Your task to perform on an android device: Go to accessibility settings Image 0: 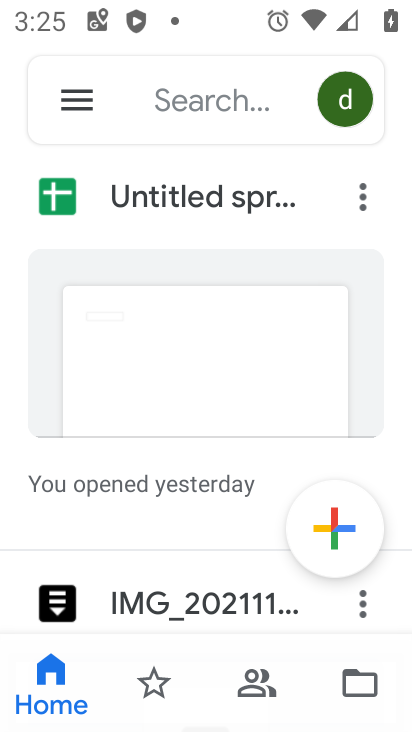
Step 0: press home button
Your task to perform on an android device: Go to accessibility settings Image 1: 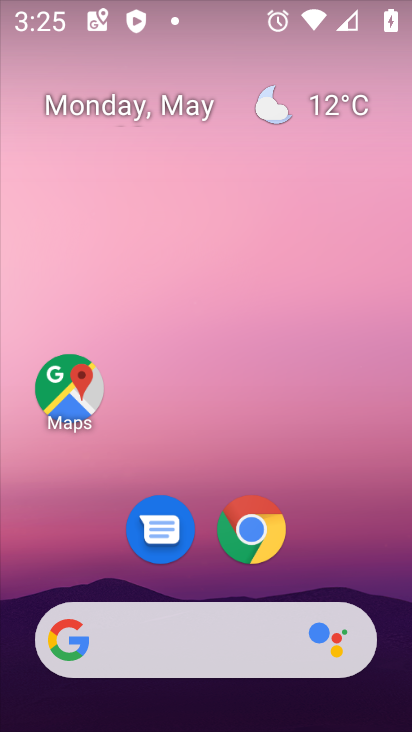
Step 1: drag from (339, 581) to (314, 47)
Your task to perform on an android device: Go to accessibility settings Image 2: 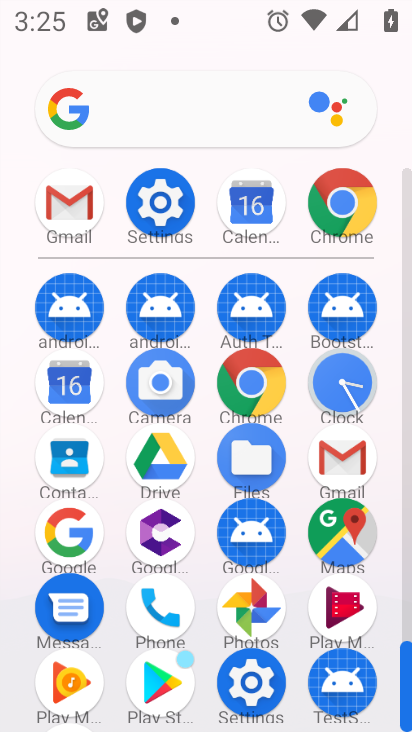
Step 2: click (151, 194)
Your task to perform on an android device: Go to accessibility settings Image 3: 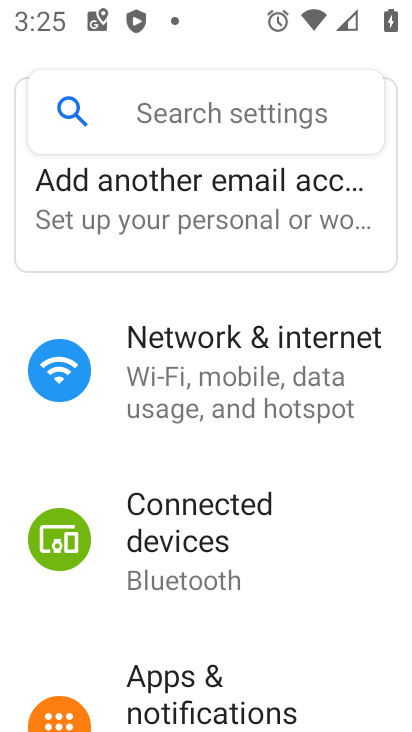
Step 3: drag from (181, 478) to (171, 251)
Your task to perform on an android device: Go to accessibility settings Image 4: 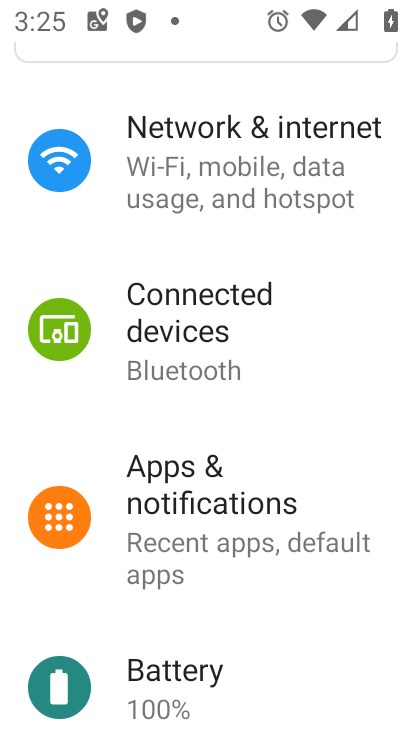
Step 4: drag from (199, 540) to (167, 350)
Your task to perform on an android device: Go to accessibility settings Image 5: 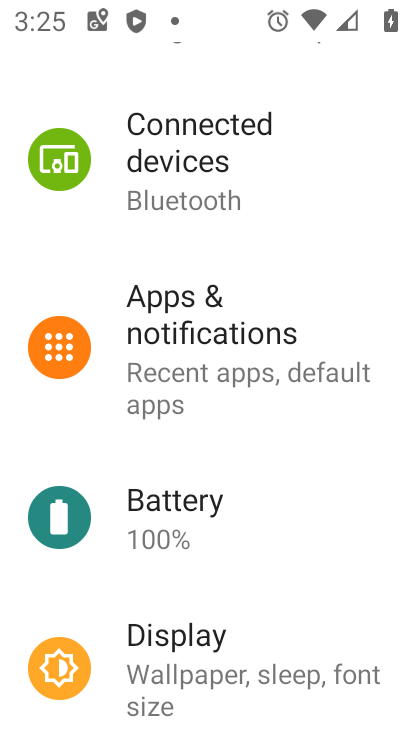
Step 5: drag from (200, 601) to (203, 399)
Your task to perform on an android device: Go to accessibility settings Image 6: 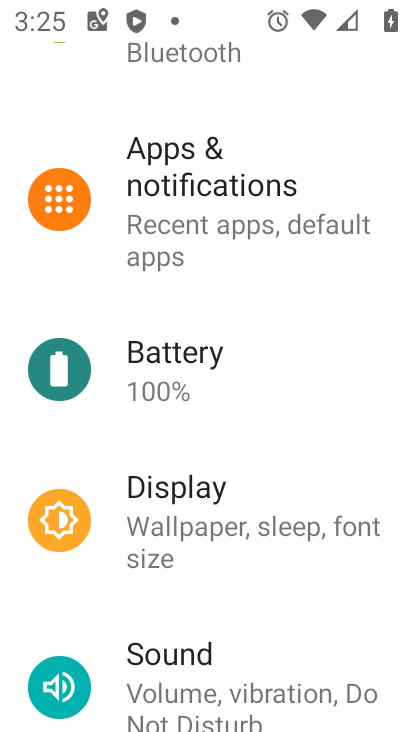
Step 6: drag from (244, 683) to (239, 509)
Your task to perform on an android device: Go to accessibility settings Image 7: 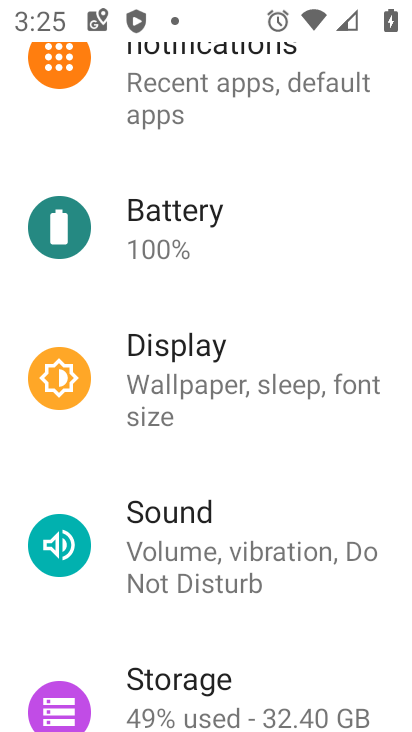
Step 7: drag from (251, 666) to (242, 512)
Your task to perform on an android device: Go to accessibility settings Image 8: 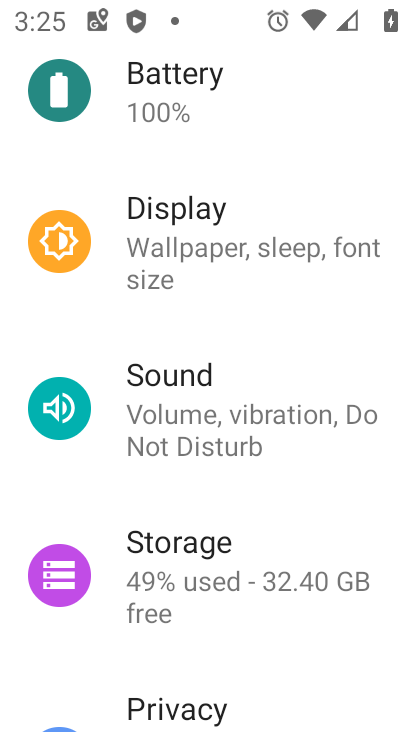
Step 8: drag from (259, 620) to (267, 469)
Your task to perform on an android device: Go to accessibility settings Image 9: 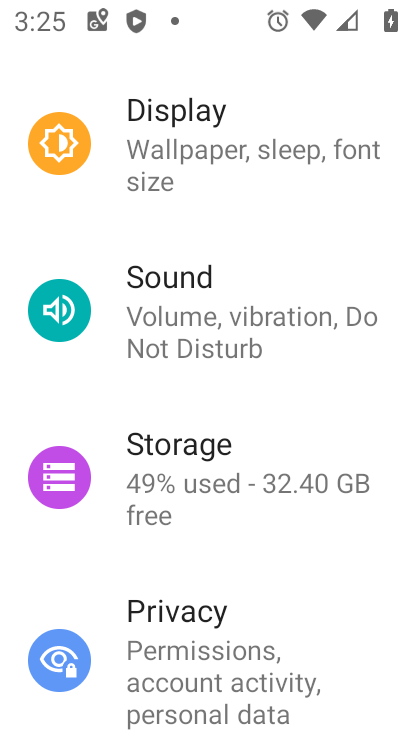
Step 9: drag from (298, 637) to (281, 505)
Your task to perform on an android device: Go to accessibility settings Image 10: 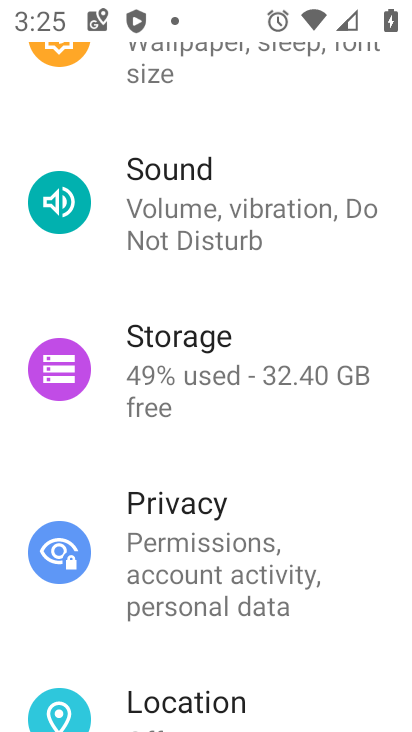
Step 10: drag from (278, 594) to (254, 469)
Your task to perform on an android device: Go to accessibility settings Image 11: 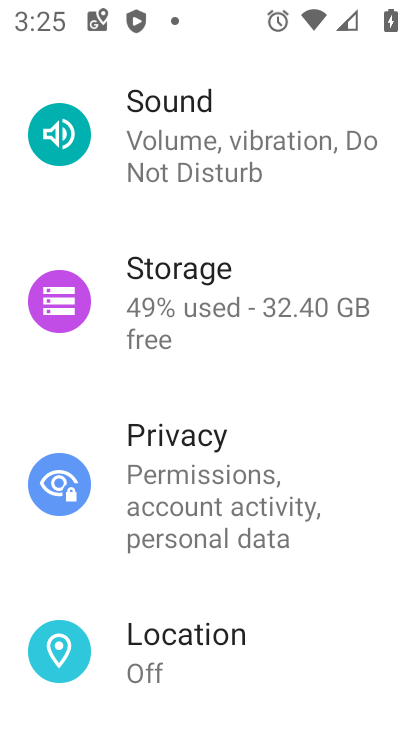
Step 11: drag from (281, 612) to (272, 495)
Your task to perform on an android device: Go to accessibility settings Image 12: 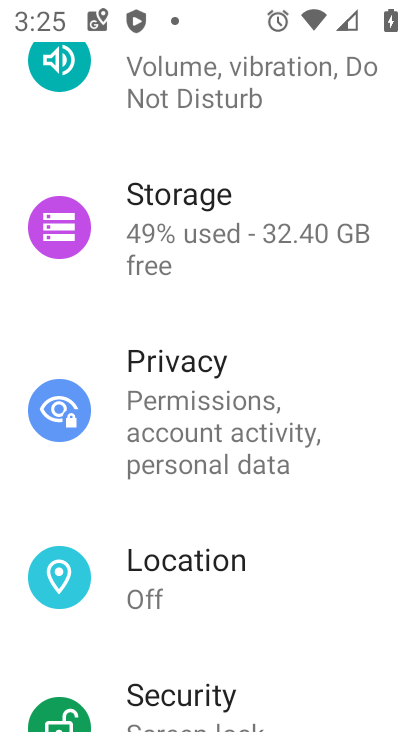
Step 12: drag from (261, 592) to (248, 453)
Your task to perform on an android device: Go to accessibility settings Image 13: 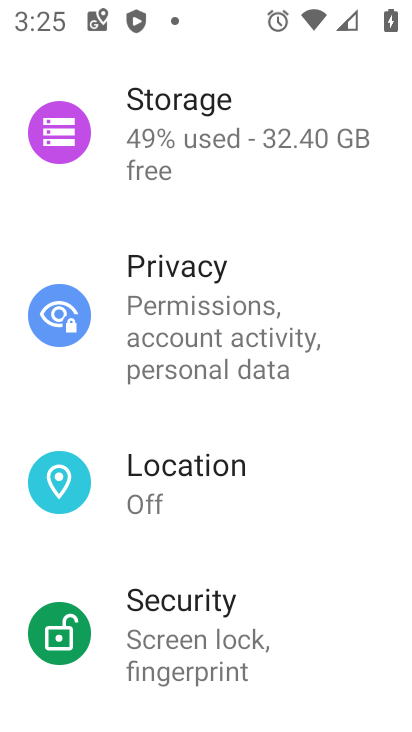
Step 13: drag from (206, 626) to (206, 483)
Your task to perform on an android device: Go to accessibility settings Image 14: 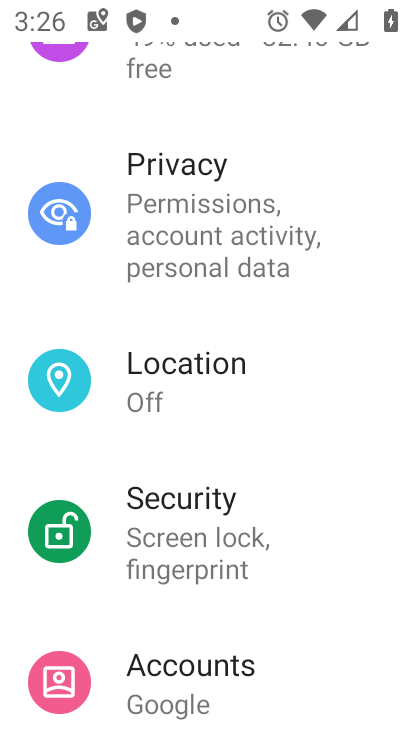
Step 14: drag from (230, 659) to (227, 430)
Your task to perform on an android device: Go to accessibility settings Image 15: 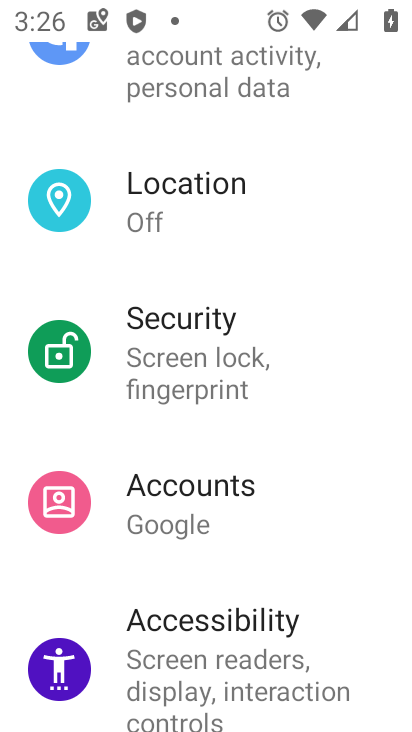
Step 15: click (239, 657)
Your task to perform on an android device: Go to accessibility settings Image 16: 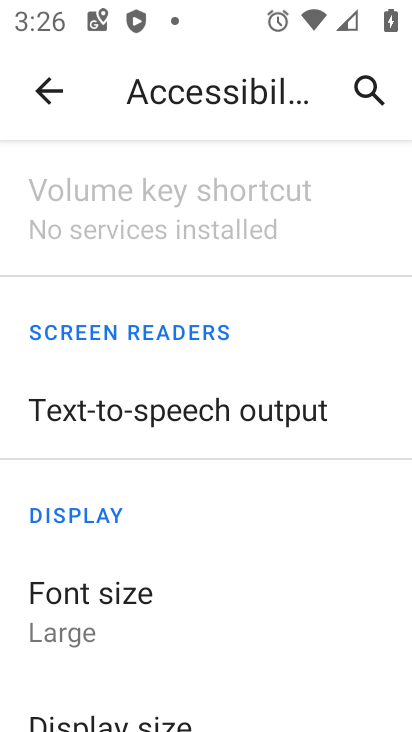
Step 16: task complete